Your task to perform on an android device: change keyboard looks Image 0: 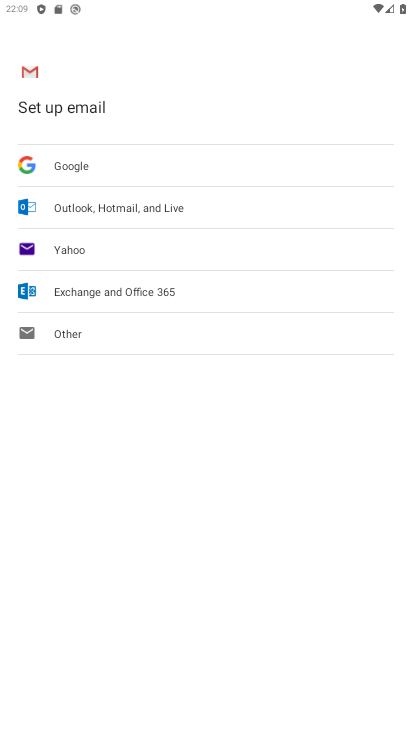
Step 0: press home button
Your task to perform on an android device: change keyboard looks Image 1: 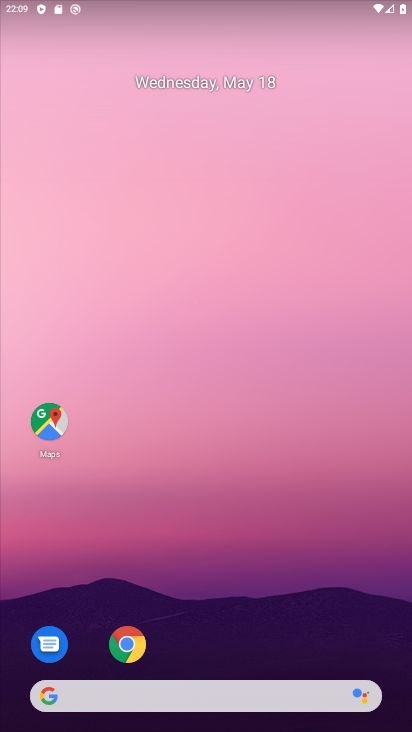
Step 1: drag from (272, 604) to (306, 54)
Your task to perform on an android device: change keyboard looks Image 2: 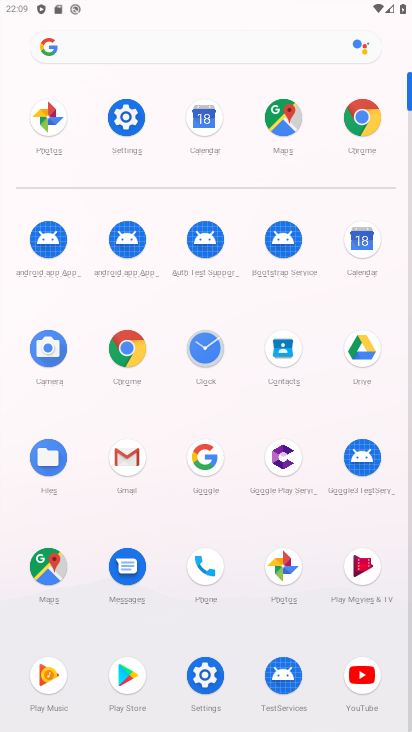
Step 2: click (122, 118)
Your task to perform on an android device: change keyboard looks Image 3: 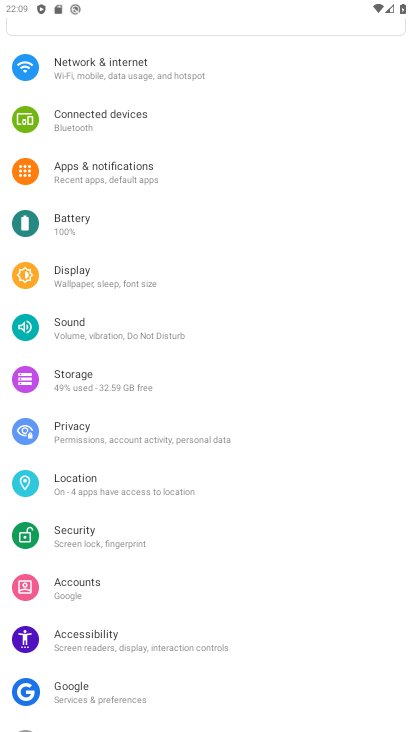
Step 3: drag from (163, 634) to (225, 80)
Your task to perform on an android device: change keyboard looks Image 4: 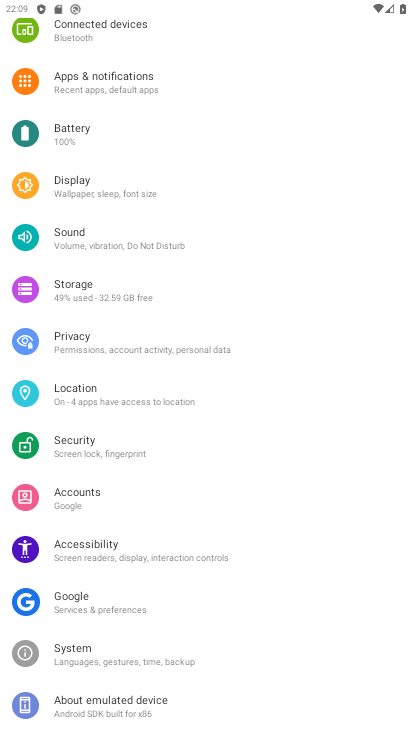
Step 4: click (101, 657)
Your task to perform on an android device: change keyboard looks Image 5: 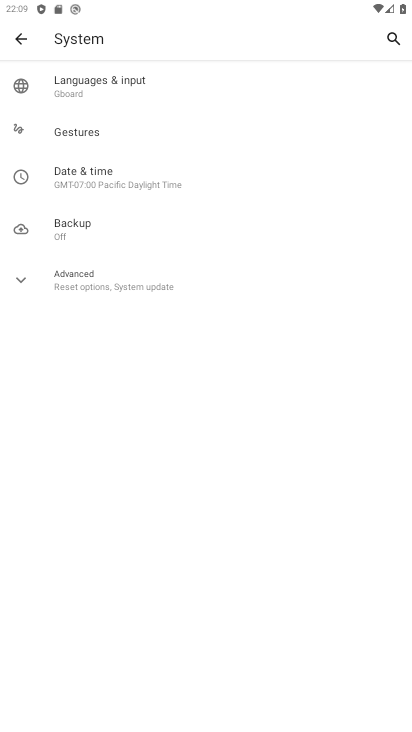
Step 5: click (119, 99)
Your task to perform on an android device: change keyboard looks Image 6: 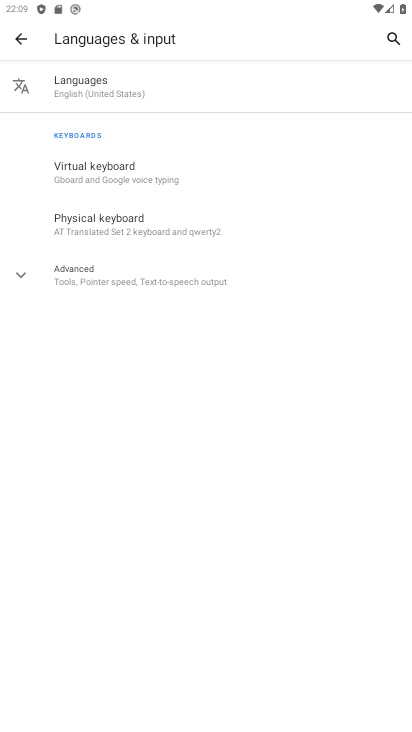
Step 6: click (83, 174)
Your task to perform on an android device: change keyboard looks Image 7: 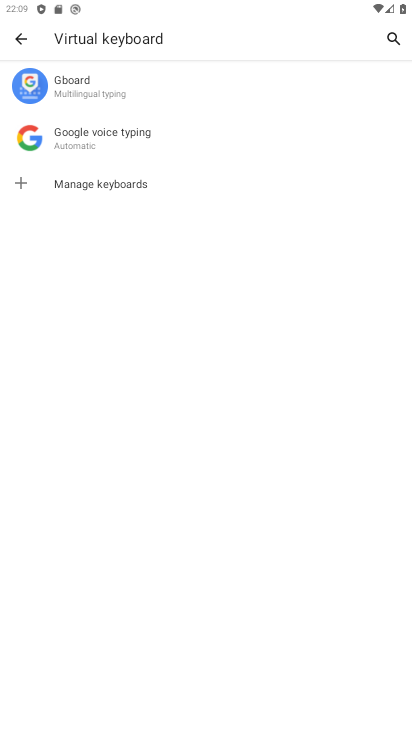
Step 7: click (101, 94)
Your task to perform on an android device: change keyboard looks Image 8: 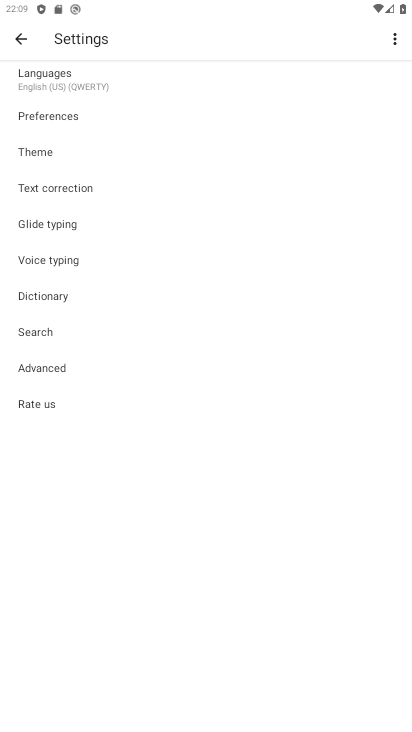
Step 8: click (41, 152)
Your task to perform on an android device: change keyboard looks Image 9: 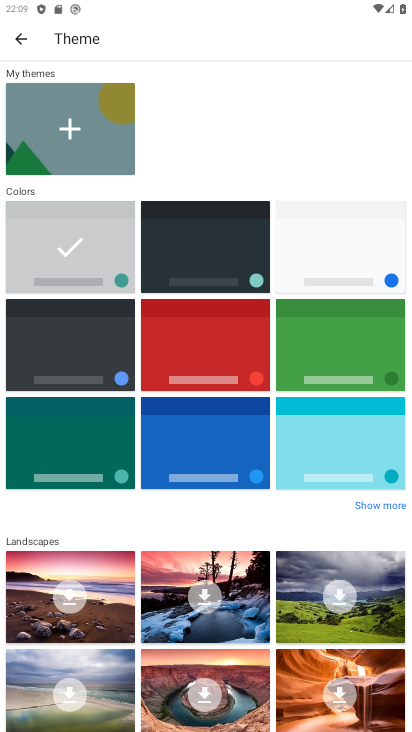
Step 9: click (364, 232)
Your task to perform on an android device: change keyboard looks Image 10: 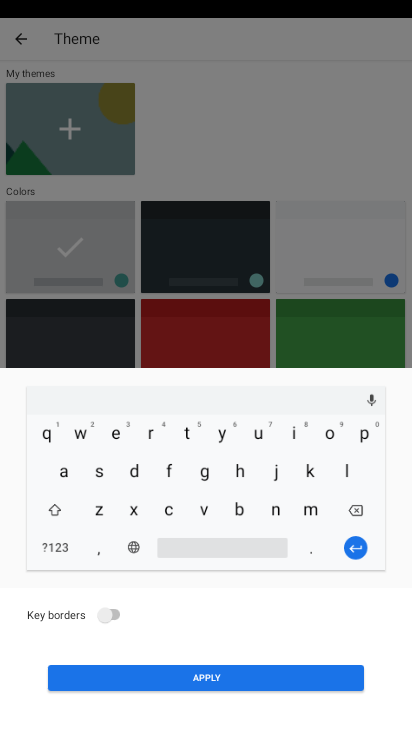
Step 10: click (222, 680)
Your task to perform on an android device: change keyboard looks Image 11: 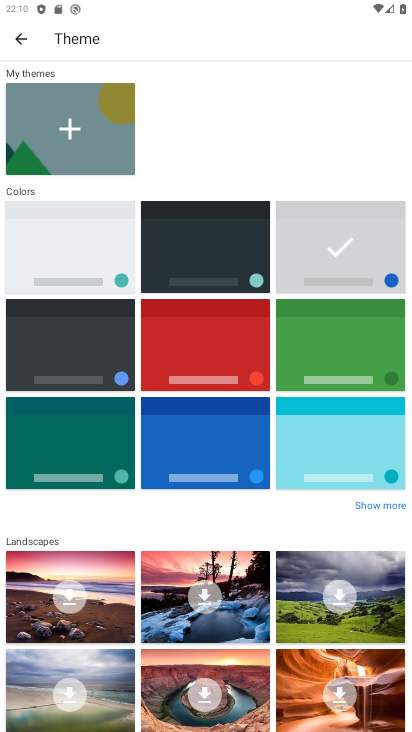
Step 11: task complete